Your task to perform on an android device: Open sound settings Image 0: 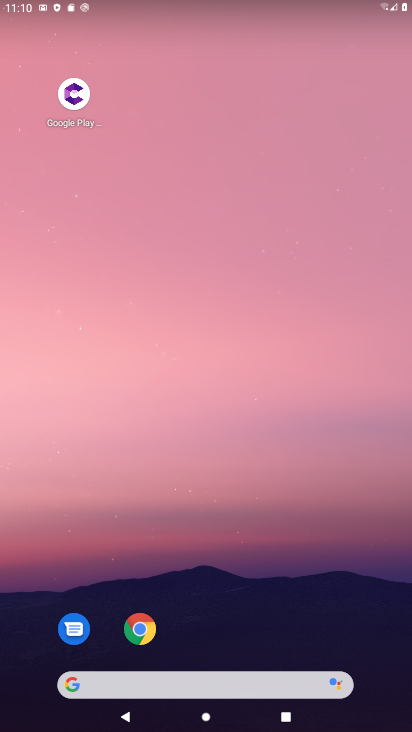
Step 0: drag from (267, 614) to (321, 51)
Your task to perform on an android device: Open sound settings Image 1: 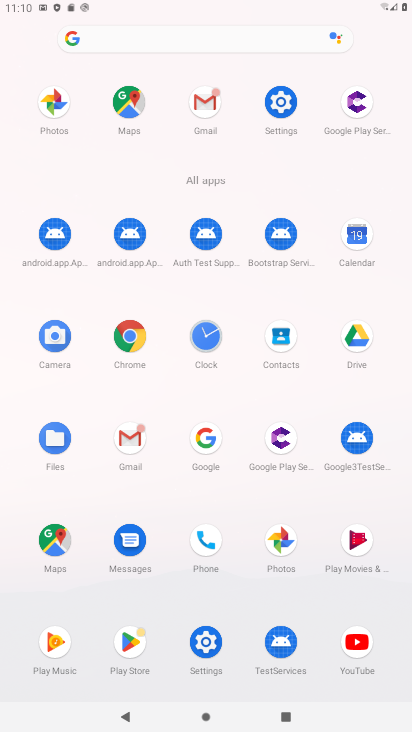
Step 1: click (274, 113)
Your task to perform on an android device: Open sound settings Image 2: 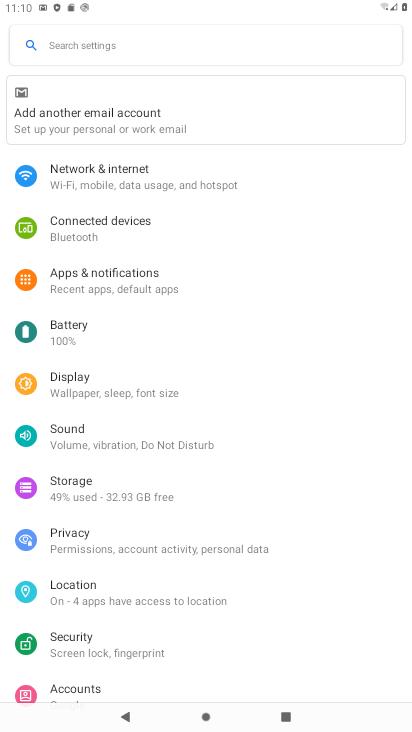
Step 2: click (82, 443)
Your task to perform on an android device: Open sound settings Image 3: 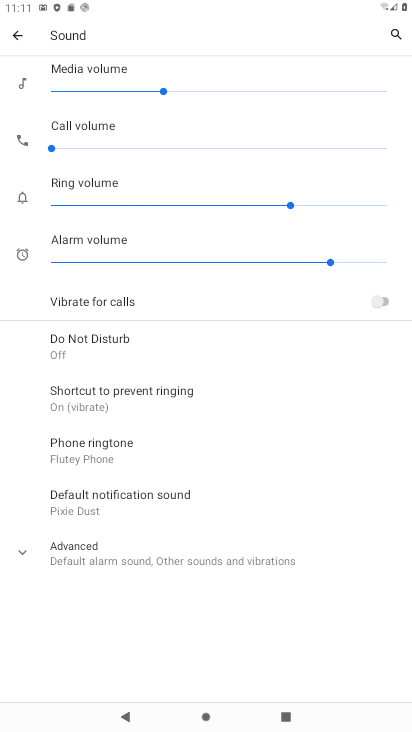
Step 3: task complete